Your task to perform on an android device: delete location history Image 0: 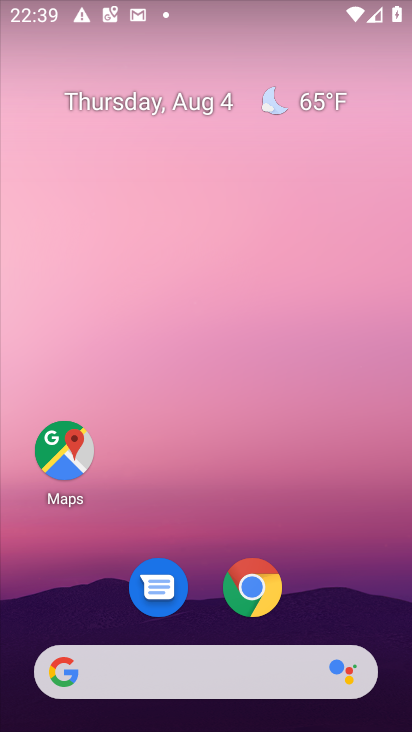
Step 0: drag from (151, 668) to (150, 229)
Your task to perform on an android device: delete location history Image 1: 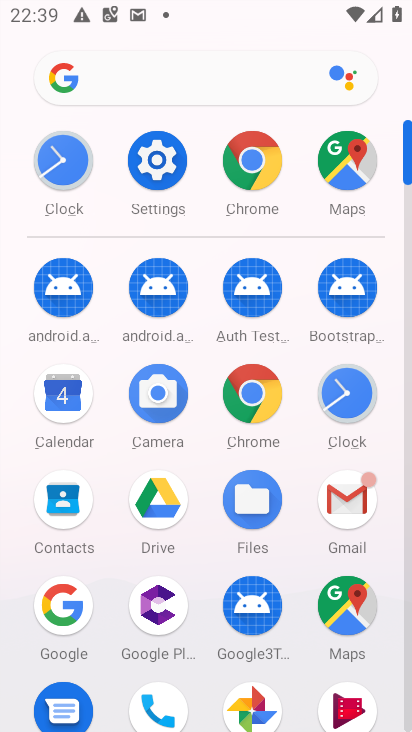
Step 1: click (357, 600)
Your task to perform on an android device: delete location history Image 2: 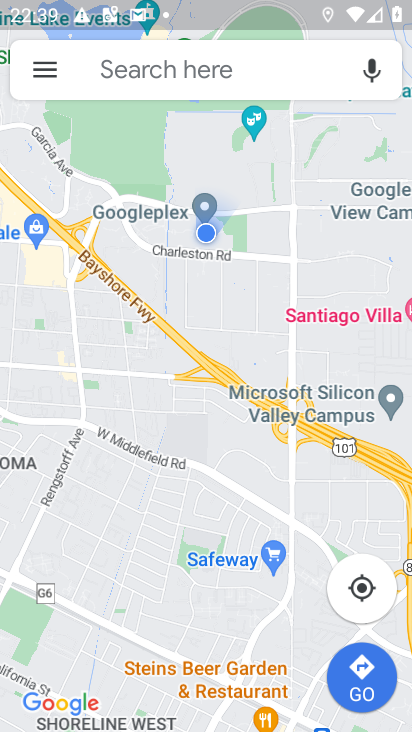
Step 2: click (41, 66)
Your task to perform on an android device: delete location history Image 3: 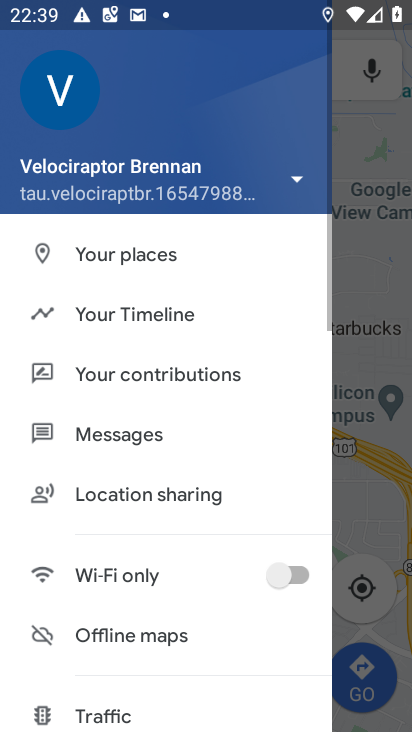
Step 3: click (188, 308)
Your task to perform on an android device: delete location history Image 4: 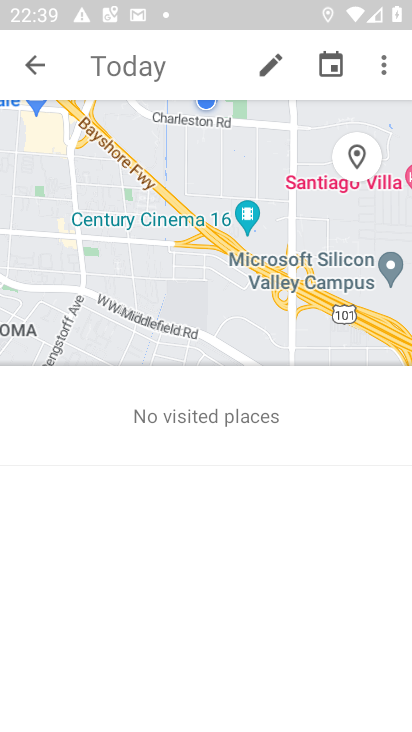
Step 4: click (385, 61)
Your task to perform on an android device: delete location history Image 5: 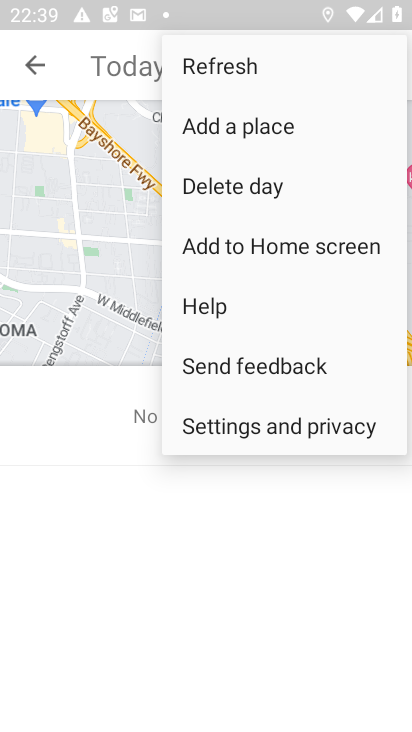
Step 5: click (277, 422)
Your task to perform on an android device: delete location history Image 6: 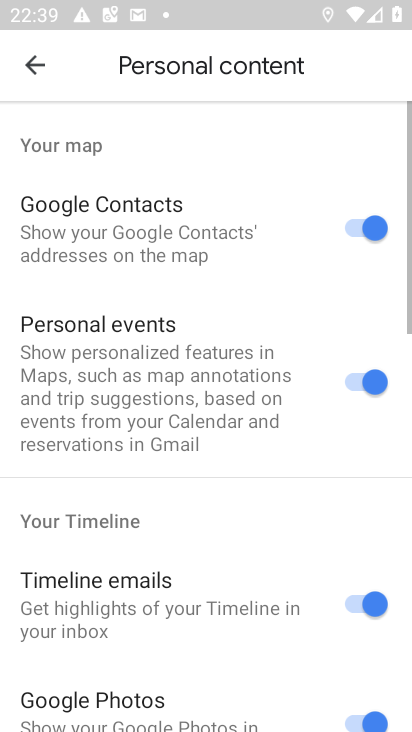
Step 6: drag from (139, 573) to (161, 227)
Your task to perform on an android device: delete location history Image 7: 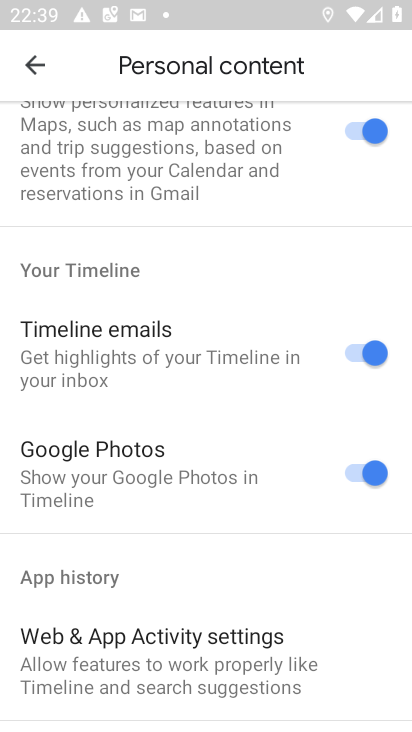
Step 7: drag from (153, 582) to (165, 203)
Your task to perform on an android device: delete location history Image 8: 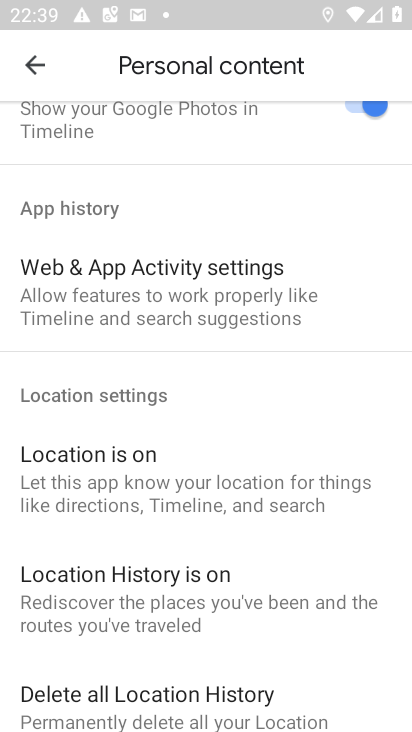
Step 8: drag from (205, 600) to (200, 382)
Your task to perform on an android device: delete location history Image 9: 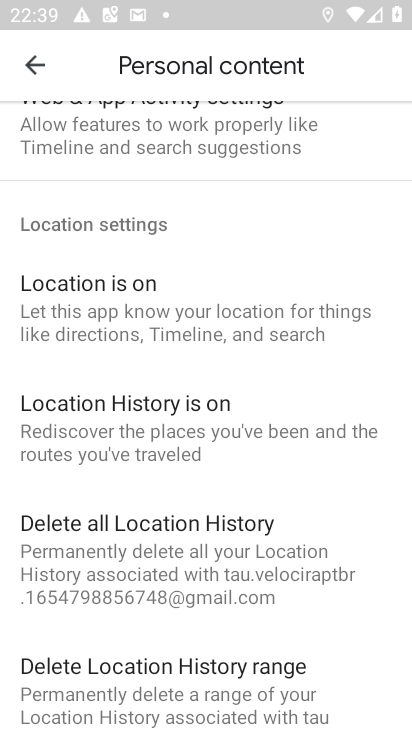
Step 9: click (220, 544)
Your task to perform on an android device: delete location history Image 10: 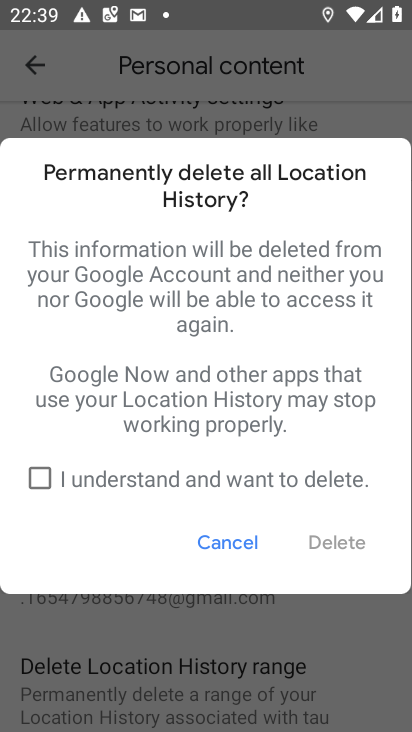
Step 10: click (35, 475)
Your task to perform on an android device: delete location history Image 11: 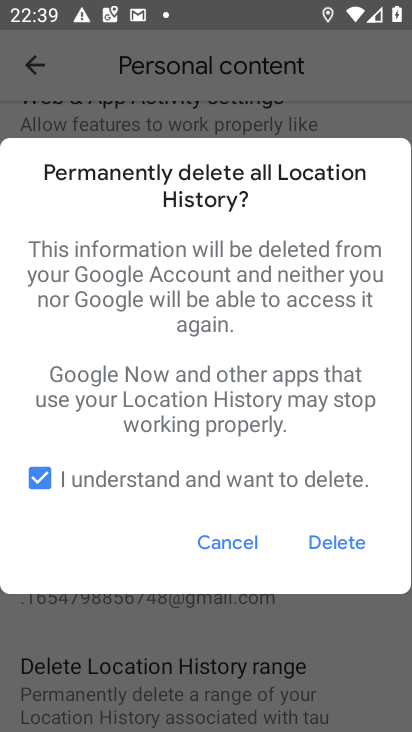
Step 11: click (308, 538)
Your task to perform on an android device: delete location history Image 12: 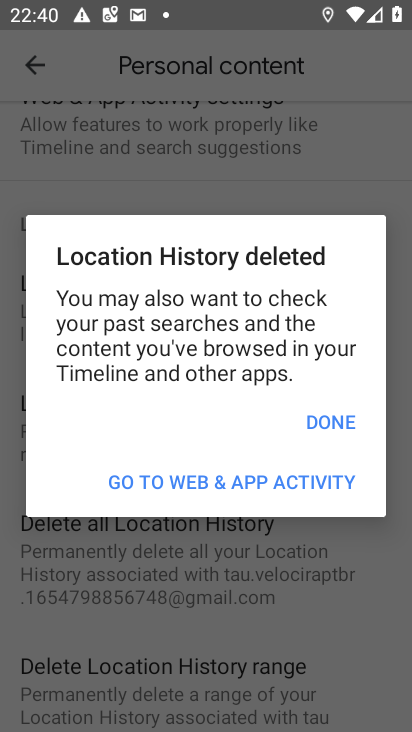
Step 12: click (332, 414)
Your task to perform on an android device: delete location history Image 13: 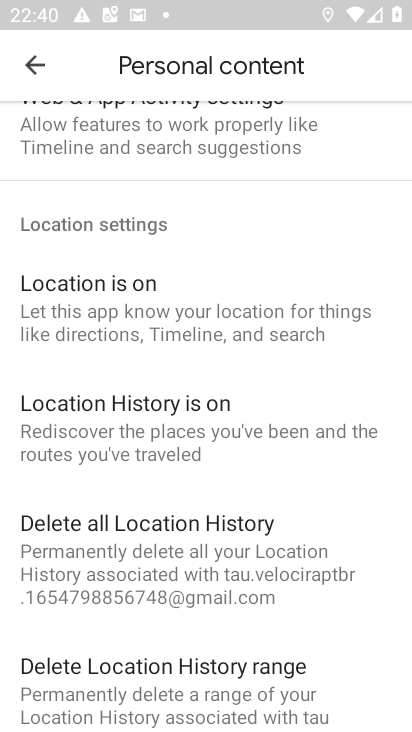
Step 13: task complete